Your task to perform on an android device: What is the news today? Image 0: 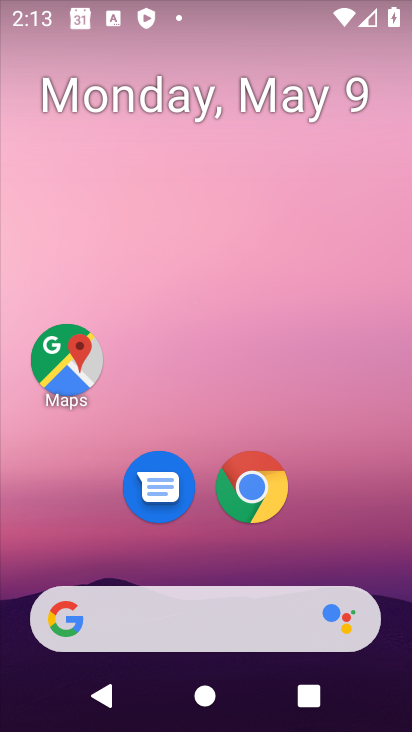
Step 0: click (211, 625)
Your task to perform on an android device: What is the news today? Image 1: 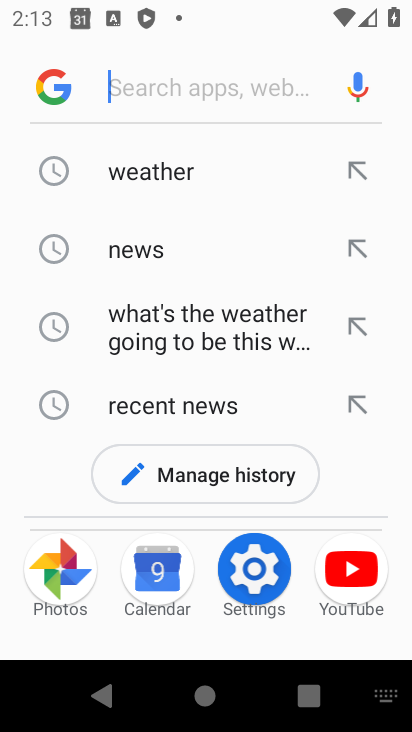
Step 1: click (122, 250)
Your task to perform on an android device: What is the news today? Image 2: 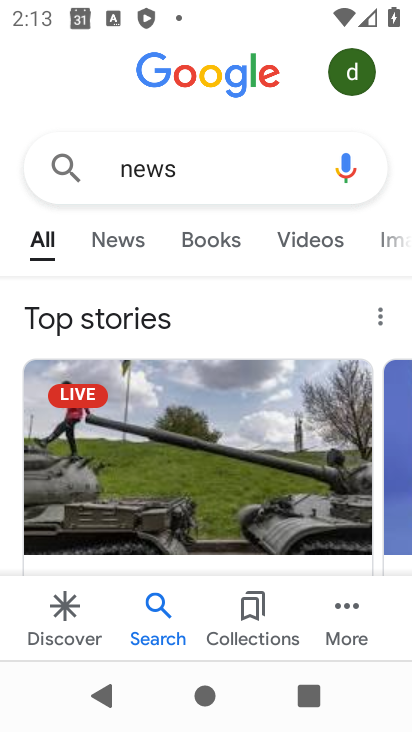
Step 2: click (118, 228)
Your task to perform on an android device: What is the news today? Image 3: 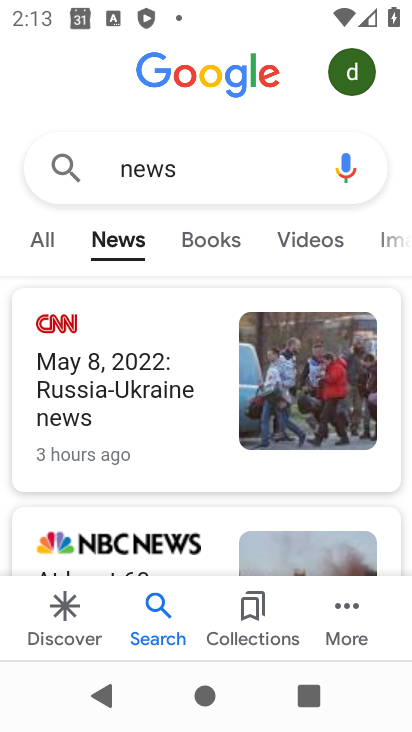
Step 3: task complete